Your task to perform on an android device: turn pop-ups on in chrome Image 0: 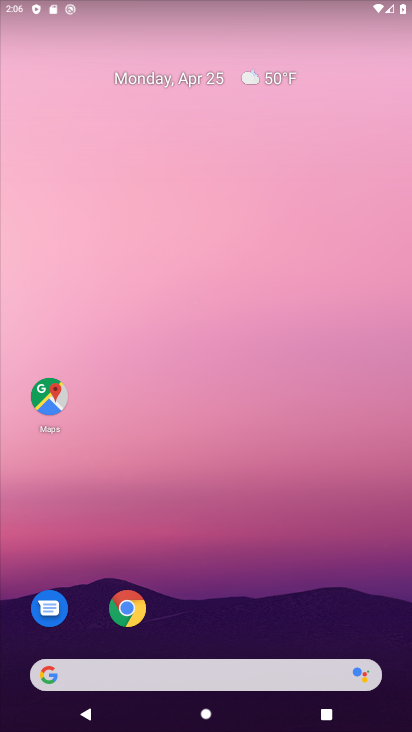
Step 0: click (114, 602)
Your task to perform on an android device: turn pop-ups on in chrome Image 1: 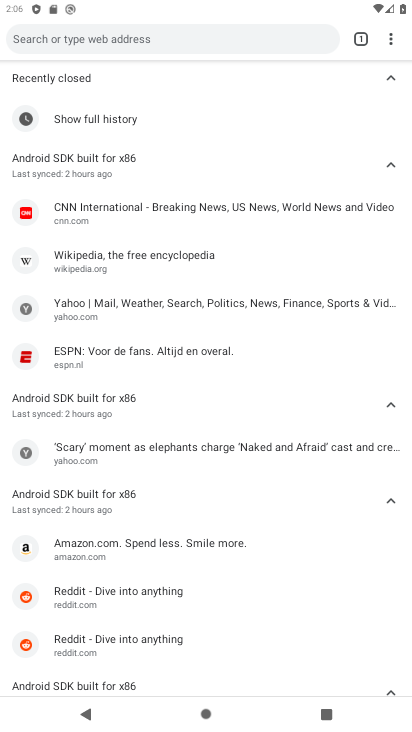
Step 1: click (387, 38)
Your task to perform on an android device: turn pop-ups on in chrome Image 2: 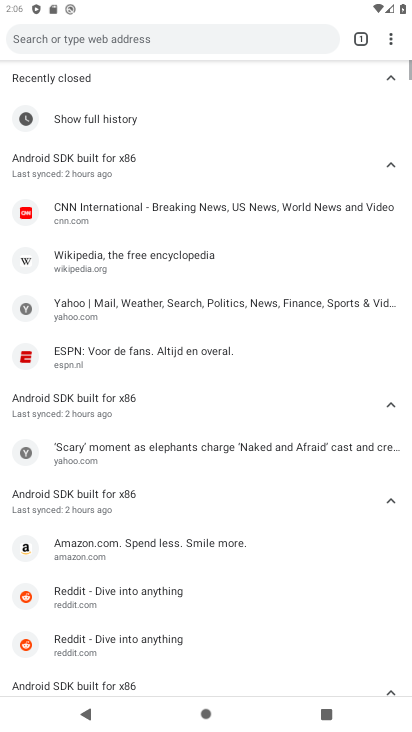
Step 2: click (387, 38)
Your task to perform on an android device: turn pop-ups on in chrome Image 3: 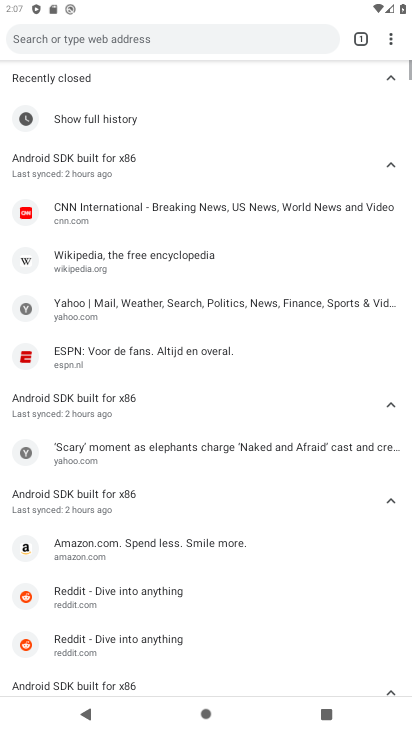
Step 3: drag from (387, 38) to (259, 378)
Your task to perform on an android device: turn pop-ups on in chrome Image 4: 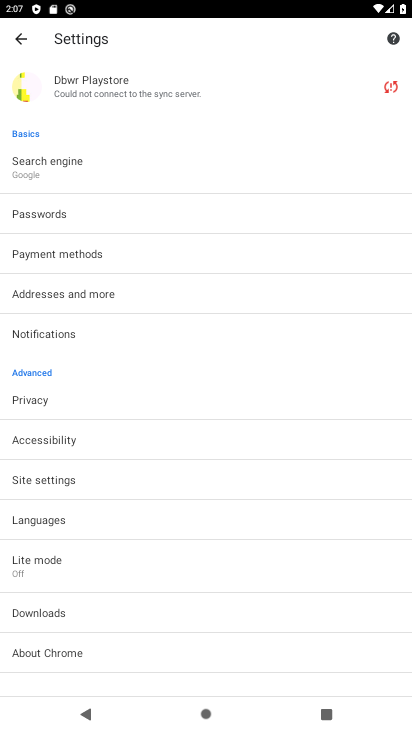
Step 4: click (72, 484)
Your task to perform on an android device: turn pop-ups on in chrome Image 5: 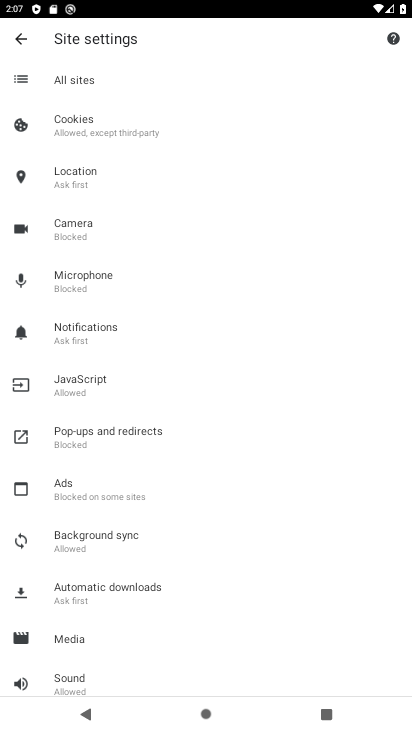
Step 5: click (145, 443)
Your task to perform on an android device: turn pop-ups on in chrome Image 6: 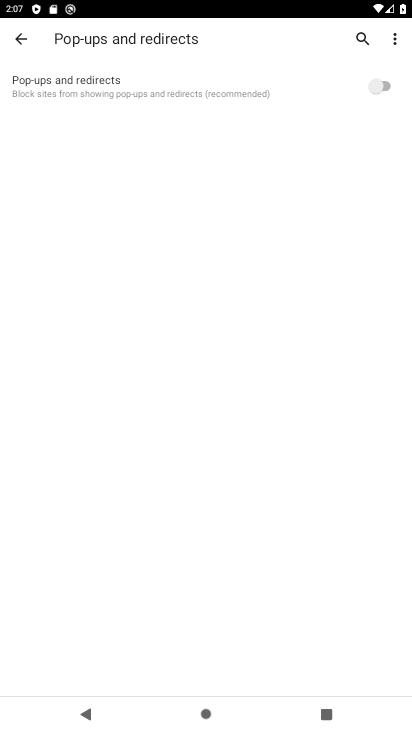
Step 6: click (387, 89)
Your task to perform on an android device: turn pop-ups on in chrome Image 7: 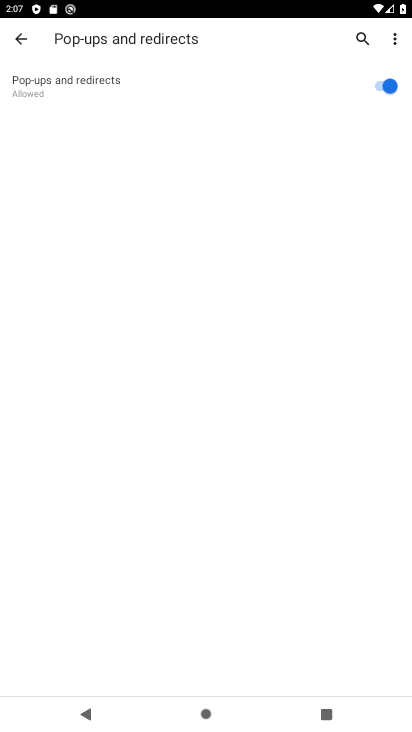
Step 7: task complete